Your task to perform on an android device: Open maps Image 0: 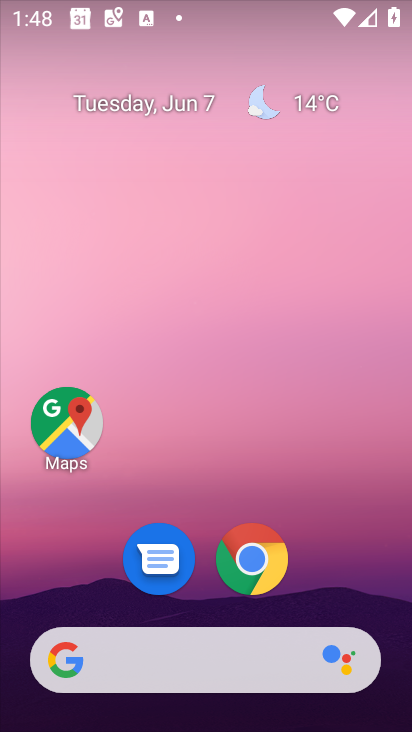
Step 0: click (83, 423)
Your task to perform on an android device: Open maps Image 1: 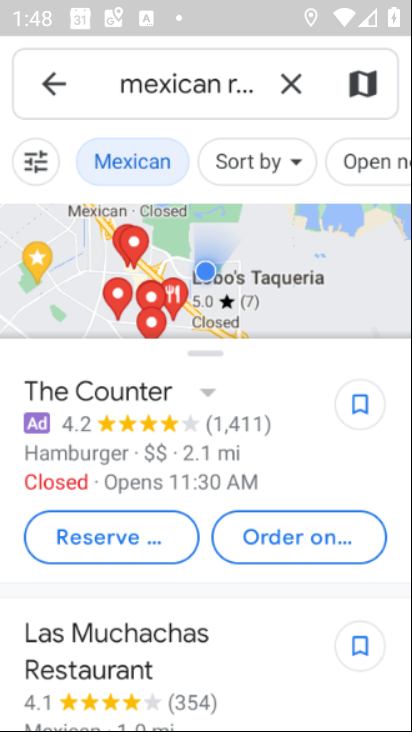
Step 1: click (282, 78)
Your task to perform on an android device: Open maps Image 2: 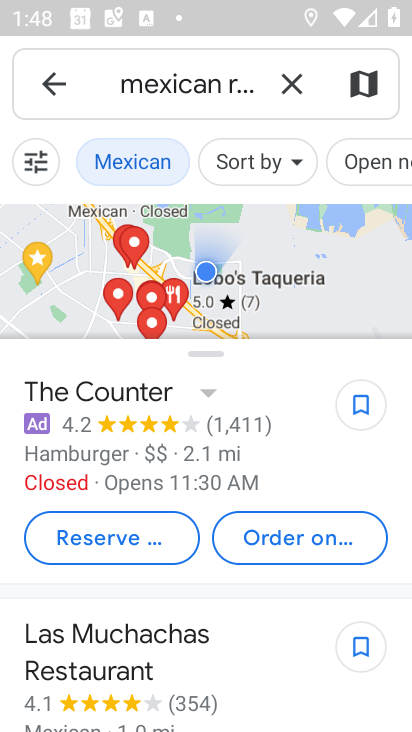
Step 2: click (291, 78)
Your task to perform on an android device: Open maps Image 3: 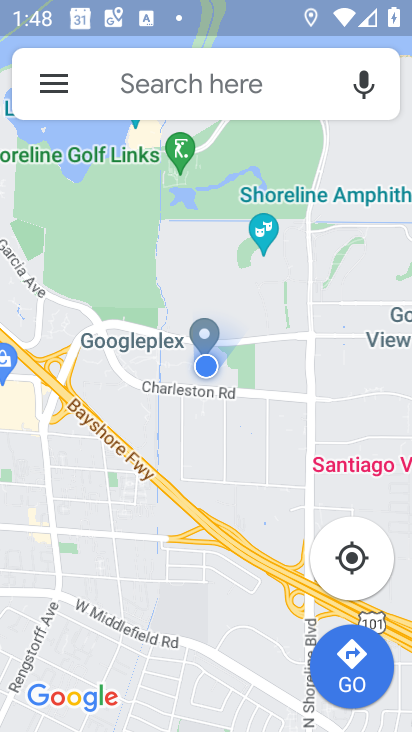
Step 3: task complete